Your task to perform on an android device: Open calendar and show me the second week of next month Image 0: 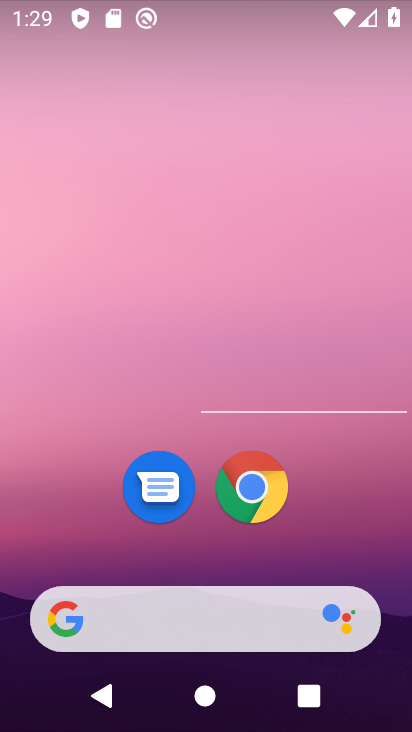
Step 0: drag from (364, 551) to (263, 0)
Your task to perform on an android device: Open calendar and show me the second week of next month Image 1: 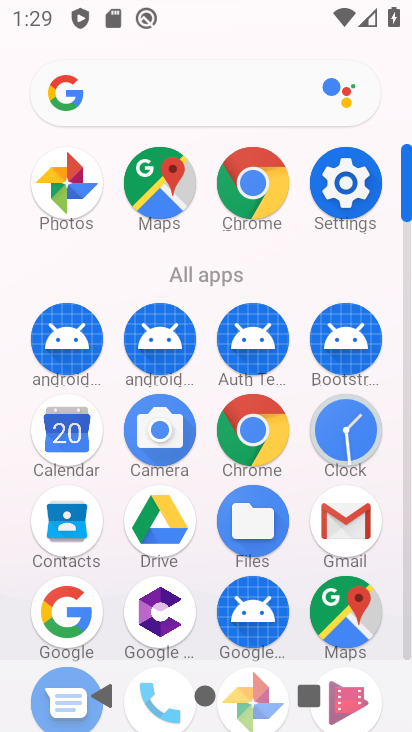
Step 1: click (73, 436)
Your task to perform on an android device: Open calendar and show me the second week of next month Image 2: 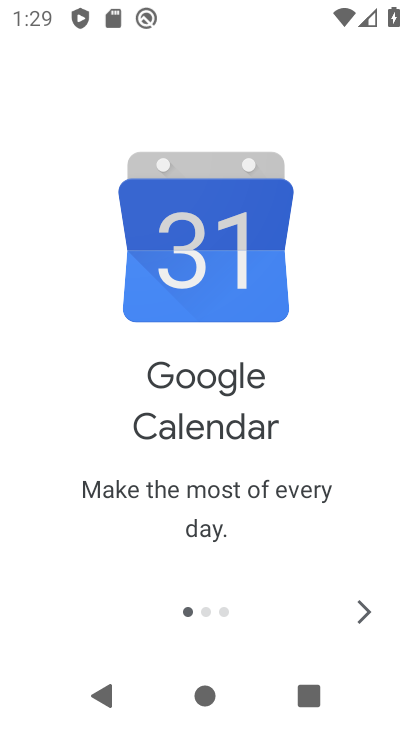
Step 2: click (366, 613)
Your task to perform on an android device: Open calendar and show me the second week of next month Image 3: 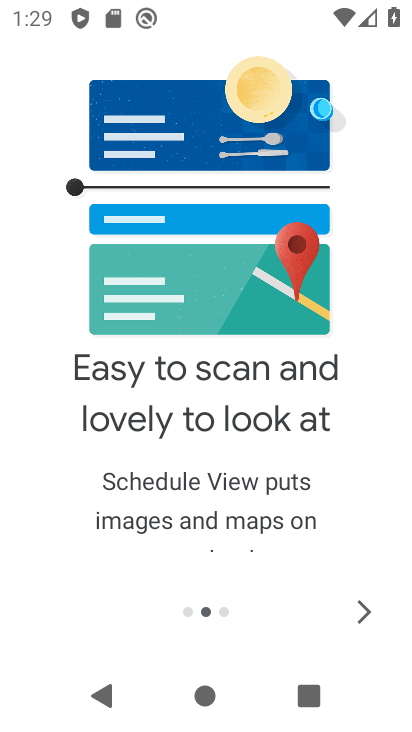
Step 3: click (366, 613)
Your task to perform on an android device: Open calendar and show me the second week of next month Image 4: 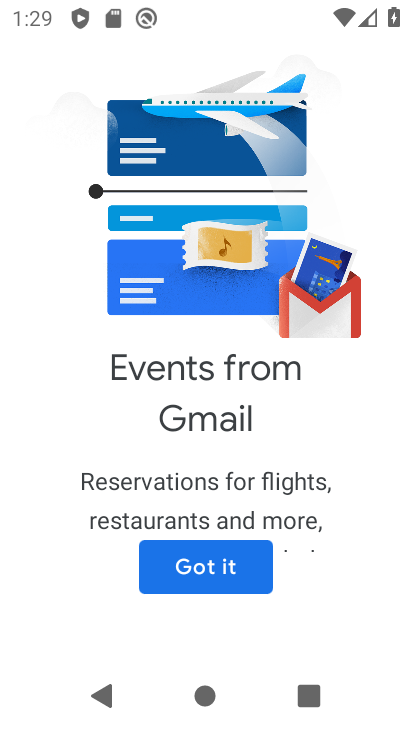
Step 4: click (261, 570)
Your task to perform on an android device: Open calendar and show me the second week of next month Image 5: 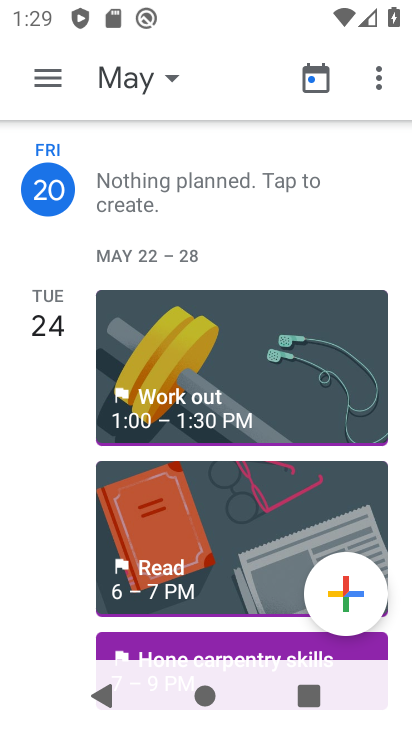
Step 5: click (127, 85)
Your task to perform on an android device: Open calendar and show me the second week of next month Image 6: 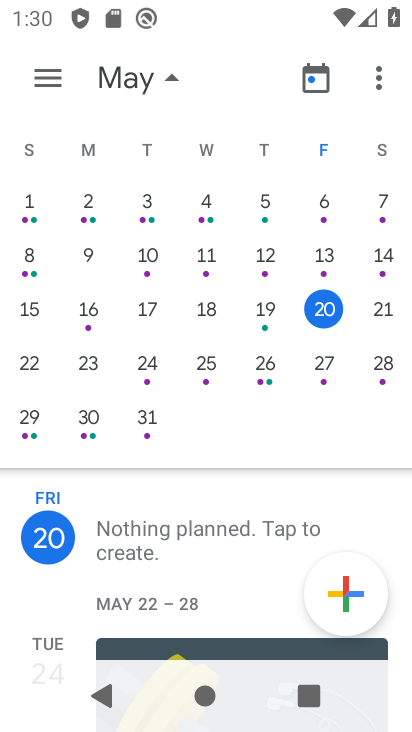
Step 6: click (382, 257)
Your task to perform on an android device: Open calendar and show me the second week of next month Image 7: 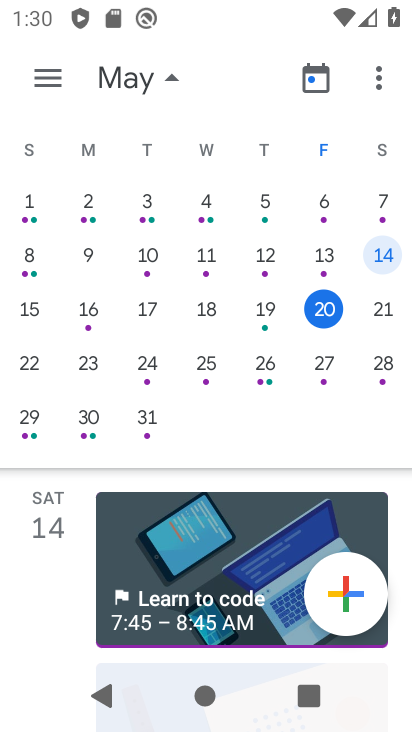
Step 7: task complete